Your task to perform on an android device: turn off data saver in the chrome app Image 0: 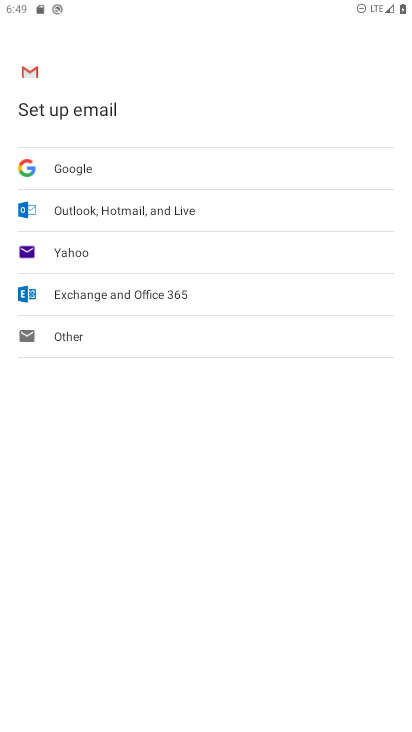
Step 0: press home button
Your task to perform on an android device: turn off data saver in the chrome app Image 1: 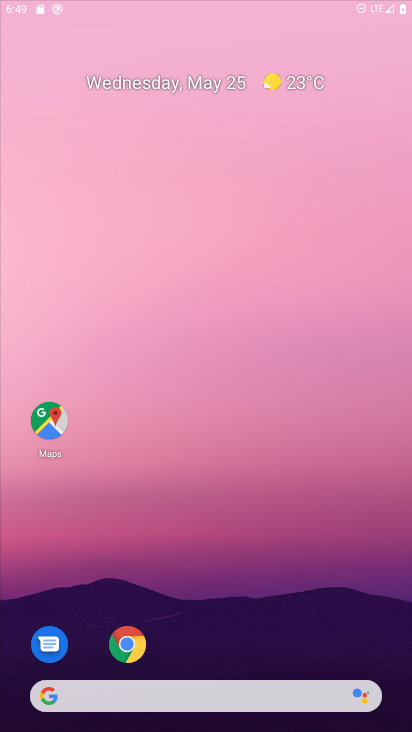
Step 1: drag from (360, 634) to (277, 43)
Your task to perform on an android device: turn off data saver in the chrome app Image 2: 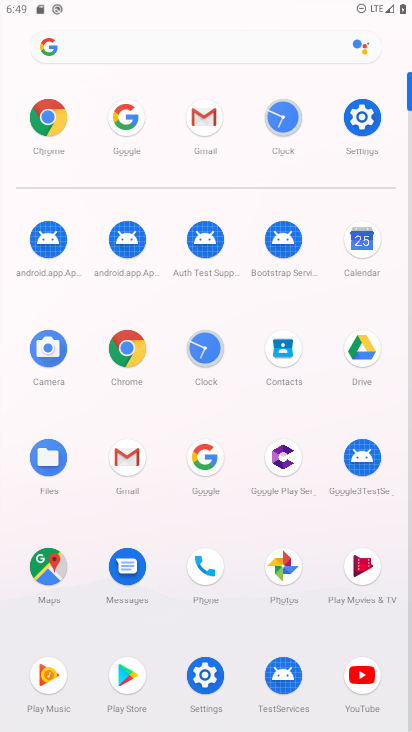
Step 2: click (58, 119)
Your task to perform on an android device: turn off data saver in the chrome app Image 3: 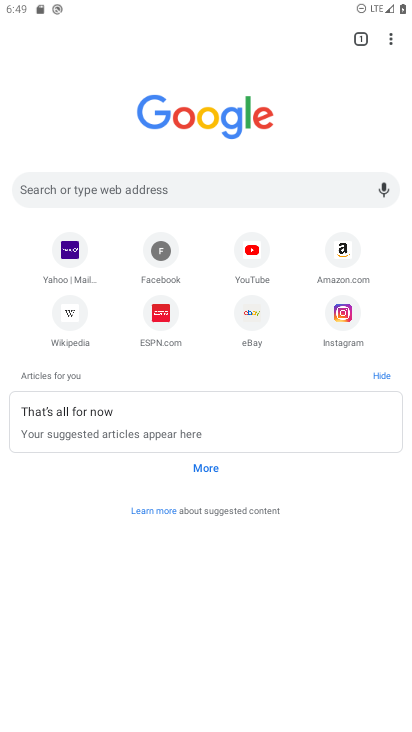
Step 3: click (387, 36)
Your task to perform on an android device: turn off data saver in the chrome app Image 4: 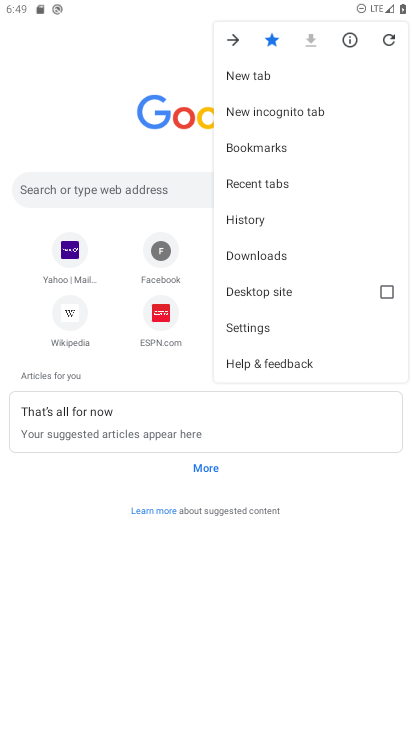
Step 4: click (237, 323)
Your task to perform on an android device: turn off data saver in the chrome app Image 5: 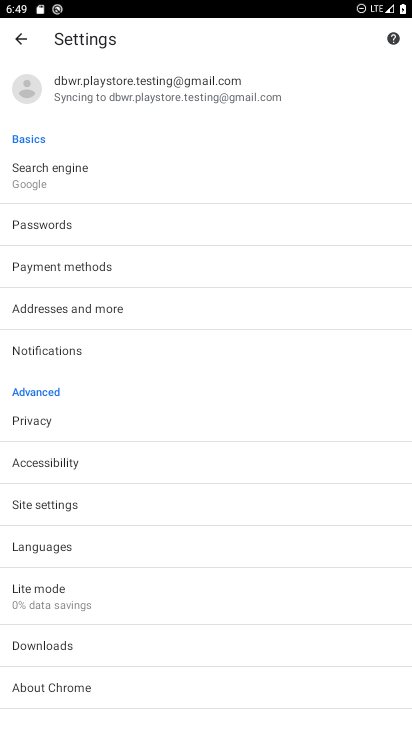
Step 5: click (102, 605)
Your task to perform on an android device: turn off data saver in the chrome app Image 6: 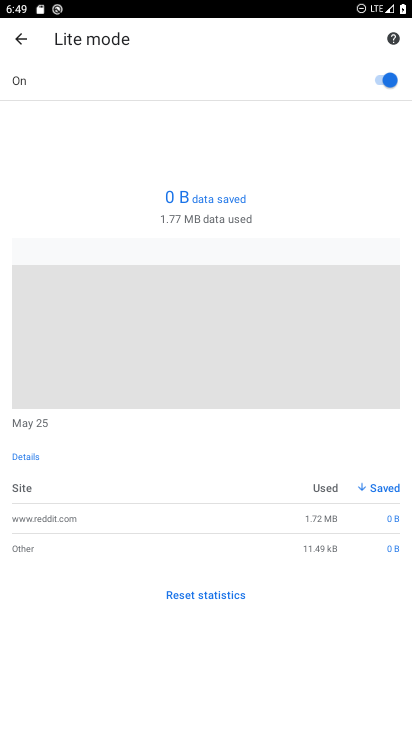
Step 6: click (358, 89)
Your task to perform on an android device: turn off data saver in the chrome app Image 7: 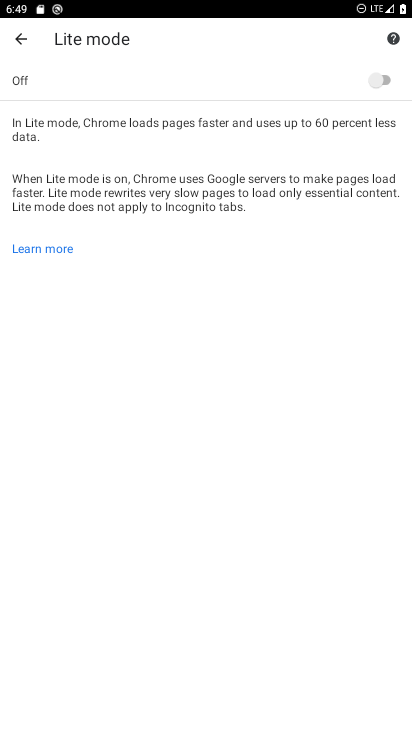
Step 7: task complete